Your task to perform on an android device: Is it going to rain tomorrow? Image 0: 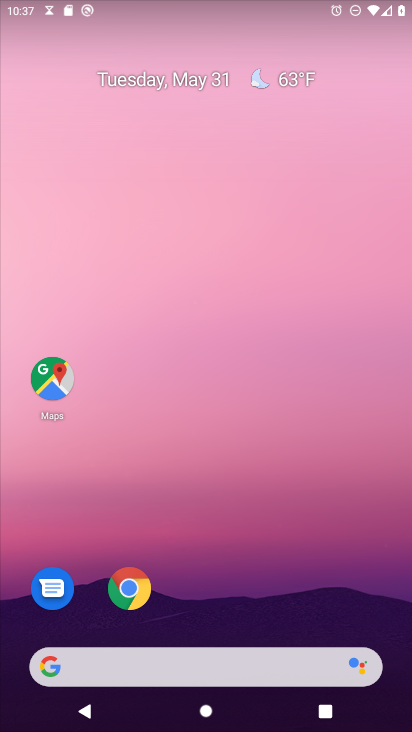
Step 0: drag from (255, 578) to (259, 0)
Your task to perform on an android device: Is it going to rain tomorrow? Image 1: 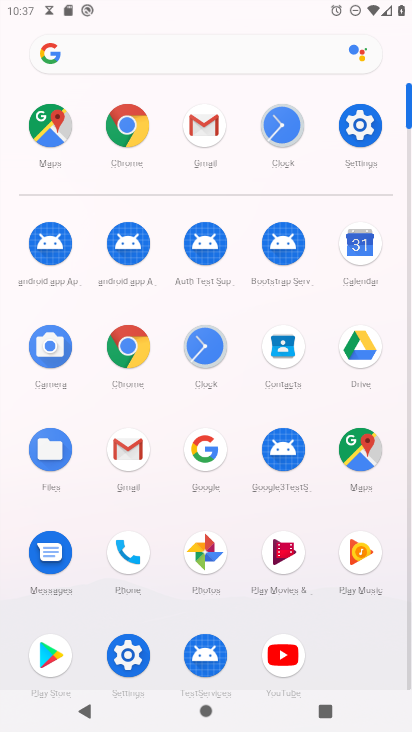
Step 1: click (202, 449)
Your task to perform on an android device: Is it going to rain tomorrow? Image 2: 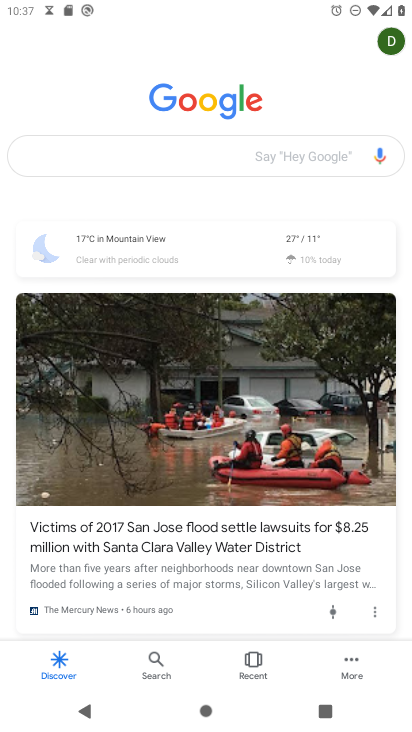
Step 2: click (292, 164)
Your task to perform on an android device: Is it going to rain tomorrow? Image 3: 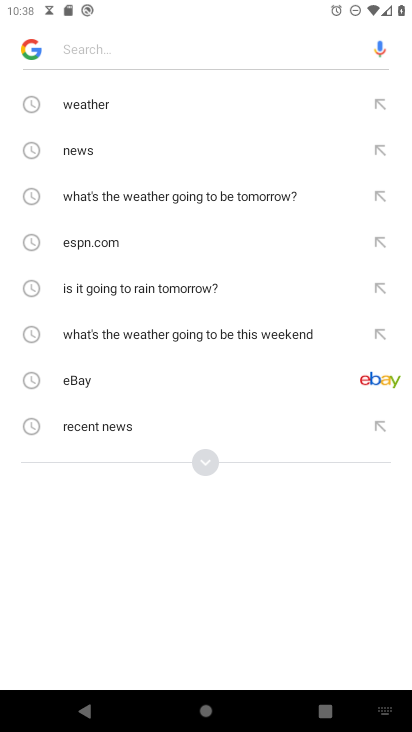
Step 3: type "Is it going to rain tomorrow"
Your task to perform on an android device: Is it going to rain tomorrow? Image 4: 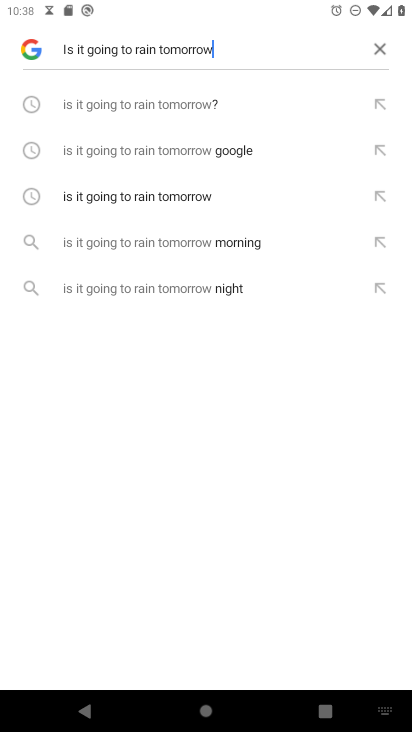
Step 4: click (152, 103)
Your task to perform on an android device: Is it going to rain tomorrow? Image 5: 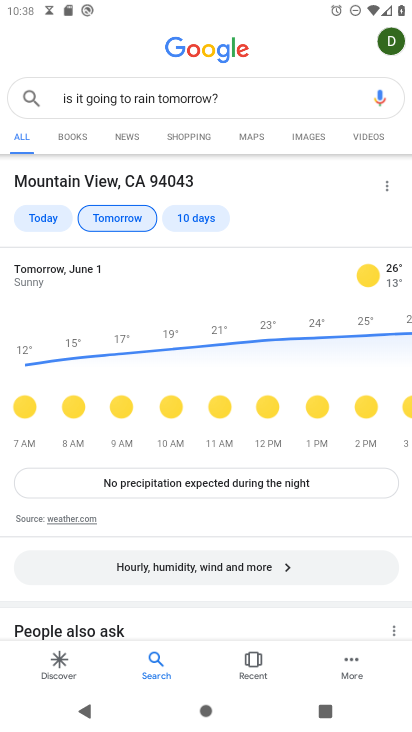
Step 5: task complete